Your task to perform on an android device: change the clock display to show seconds Image 0: 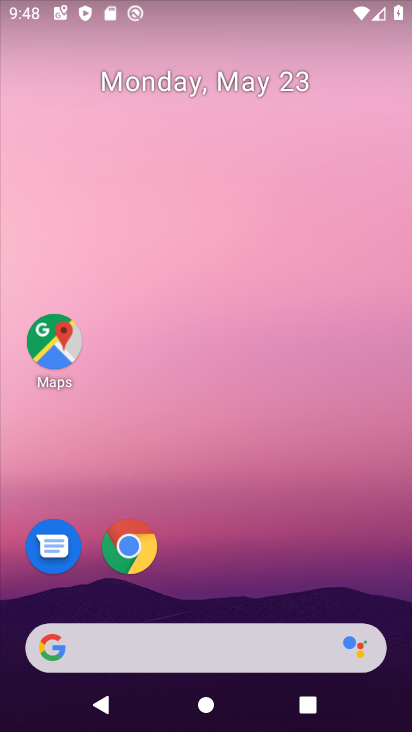
Step 0: drag from (398, 604) to (371, 95)
Your task to perform on an android device: change the clock display to show seconds Image 1: 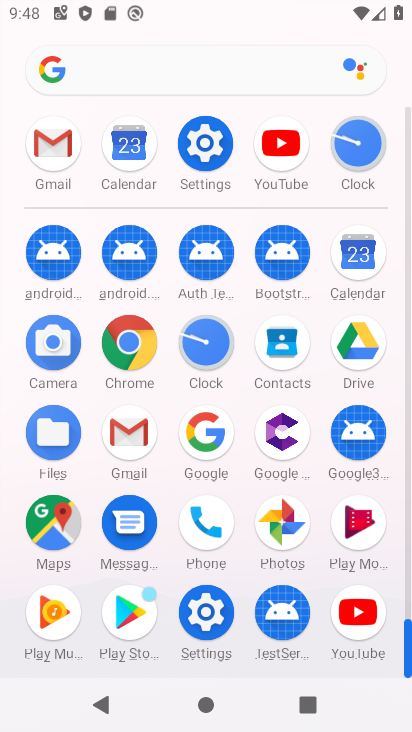
Step 1: click (206, 341)
Your task to perform on an android device: change the clock display to show seconds Image 2: 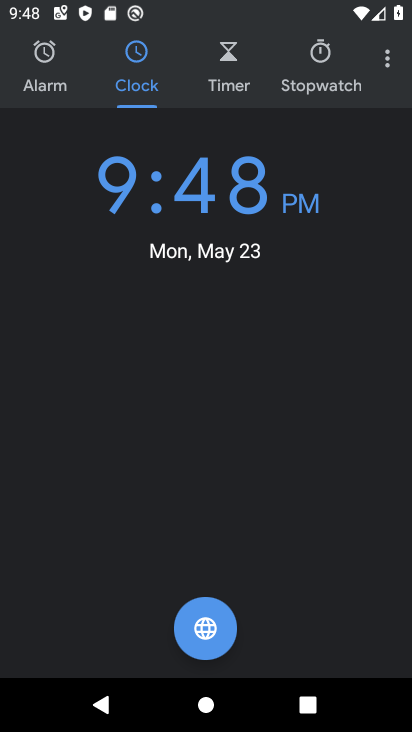
Step 2: click (388, 65)
Your task to perform on an android device: change the clock display to show seconds Image 3: 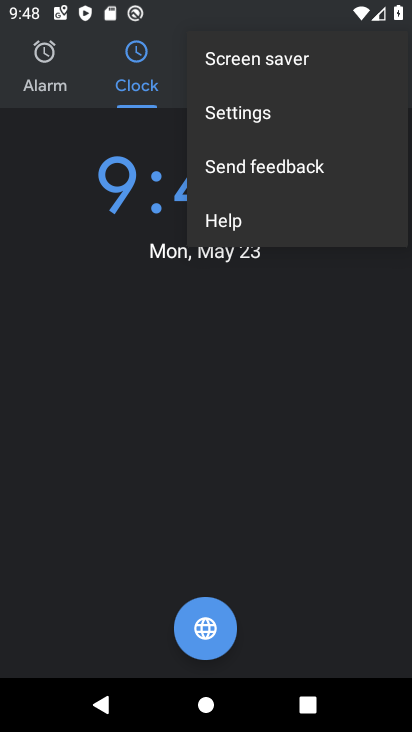
Step 3: click (229, 96)
Your task to perform on an android device: change the clock display to show seconds Image 4: 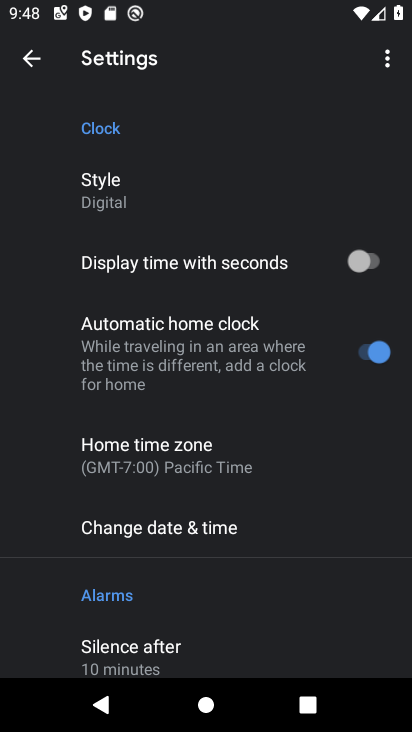
Step 4: click (369, 258)
Your task to perform on an android device: change the clock display to show seconds Image 5: 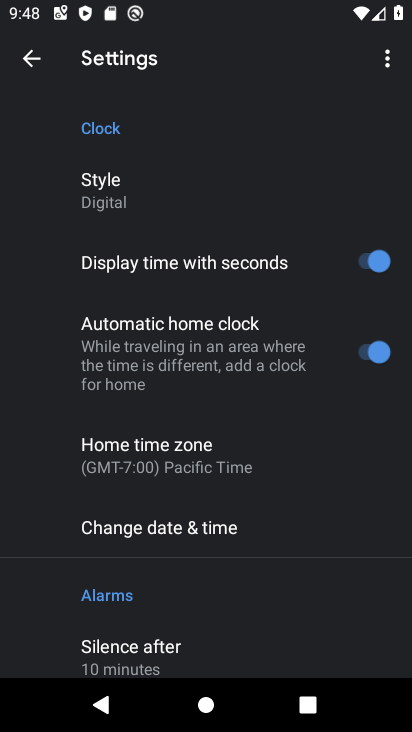
Step 5: task complete